Your task to perform on an android device: change the clock style Image 0: 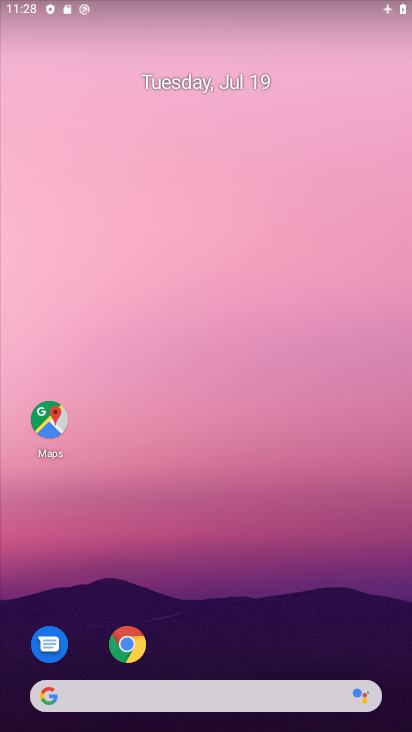
Step 0: drag from (177, 671) to (160, 221)
Your task to perform on an android device: change the clock style Image 1: 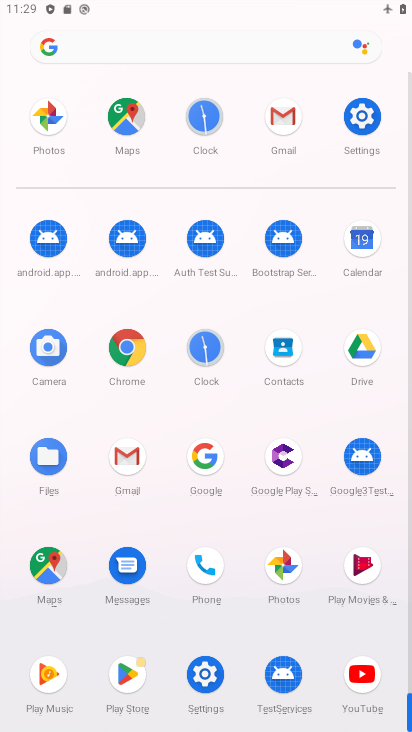
Step 1: click (200, 346)
Your task to perform on an android device: change the clock style Image 2: 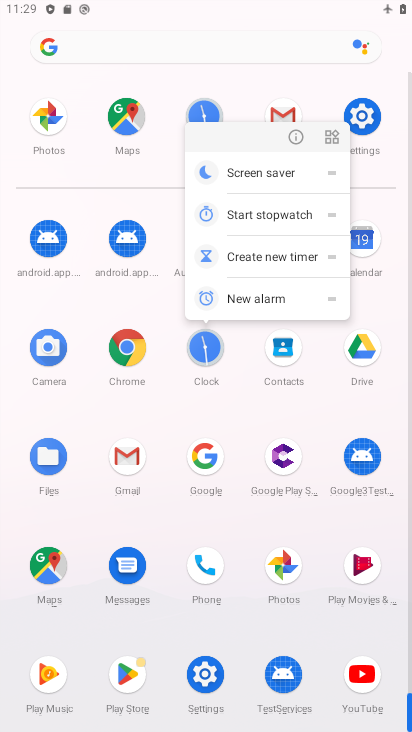
Step 2: click (293, 131)
Your task to perform on an android device: change the clock style Image 3: 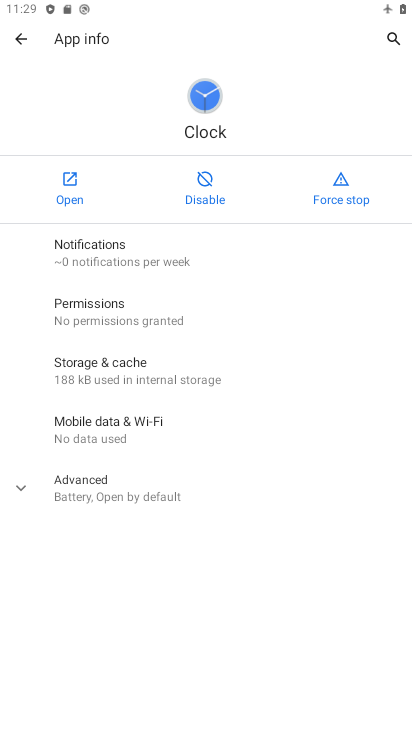
Step 3: click (65, 181)
Your task to perform on an android device: change the clock style Image 4: 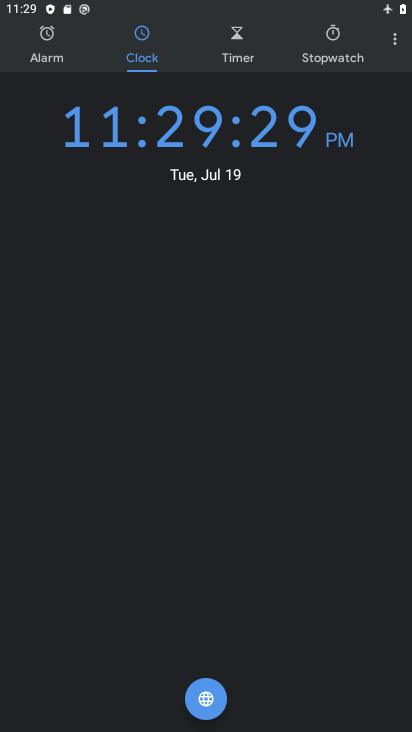
Step 4: click (397, 42)
Your task to perform on an android device: change the clock style Image 5: 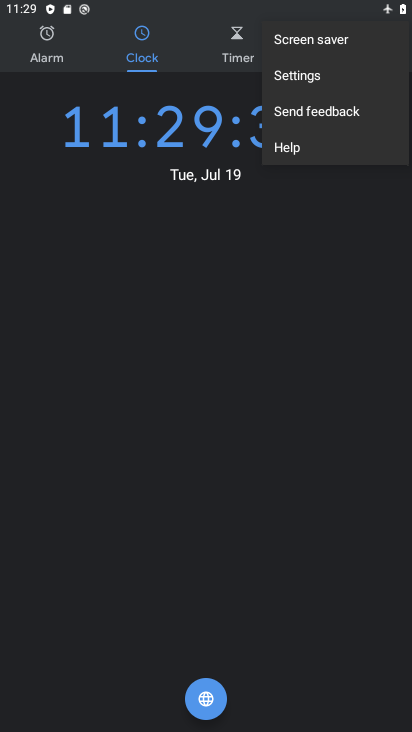
Step 5: click (300, 73)
Your task to perform on an android device: change the clock style Image 6: 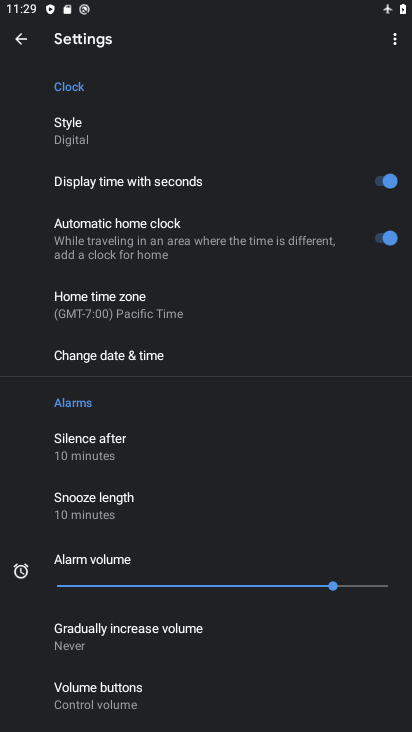
Step 6: click (98, 118)
Your task to perform on an android device: change the clock style Image 7: 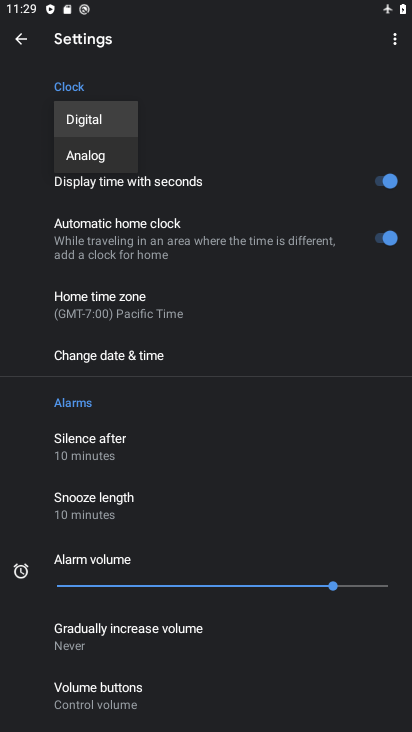
Step 7: click (114, 153)
Your task to perform on an android device: change the clock style Image 8: 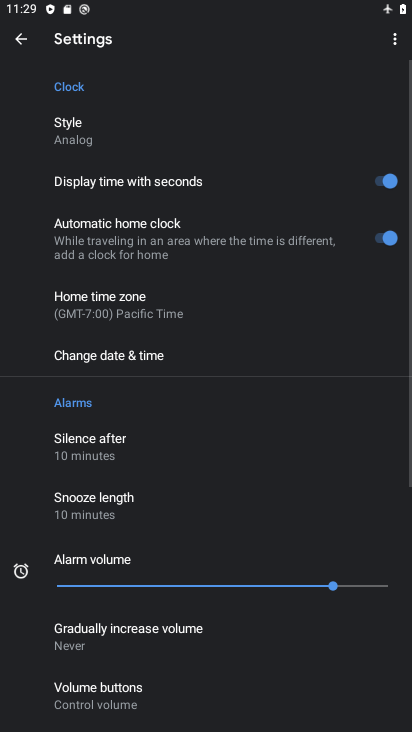
Step 8: task complete